Your task to perform on an android device: Open accessibility settings Image 0: 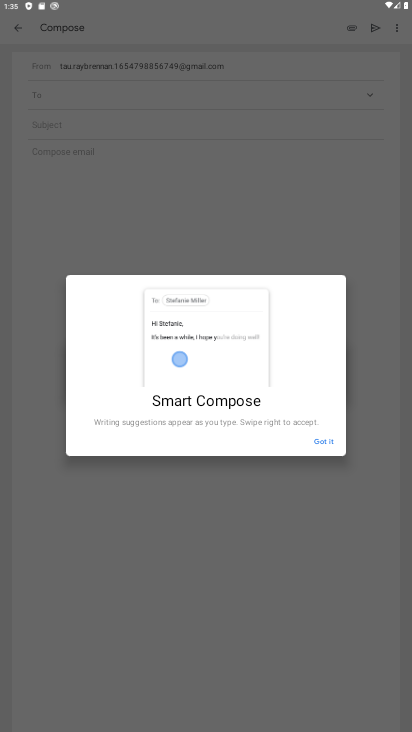
Step 0: press home button
Your task to perform on an android device: Open accessibility settings Image 1: 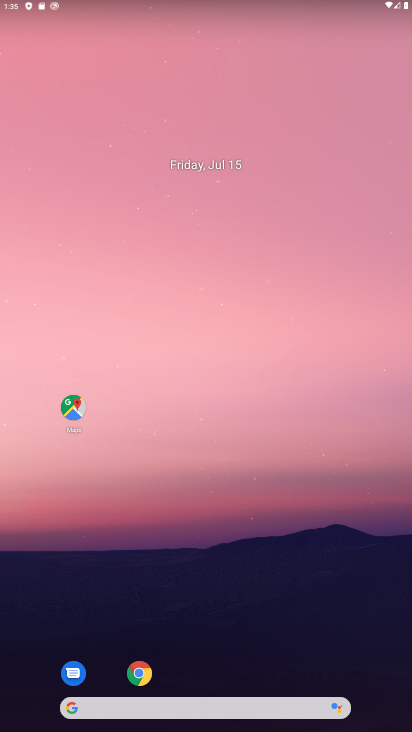
Step 1: drag from (234, 602) to (225, 4)
Your task to perform on an android device: Open accessibility settings Image 2: 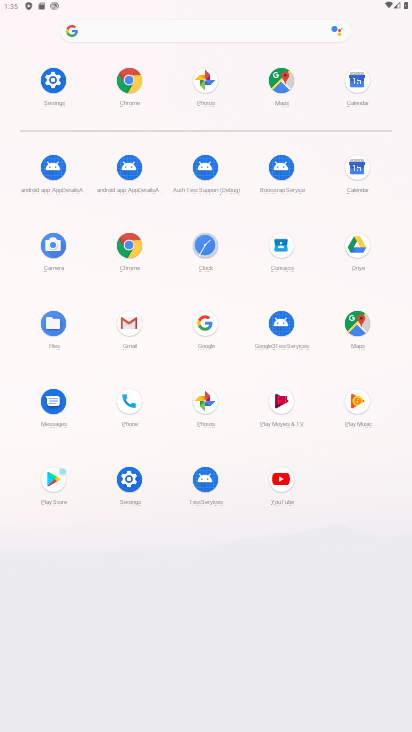
Step 2: click (59, 87)
Your task to perform on an android device: Open accessibility settings Image 3: 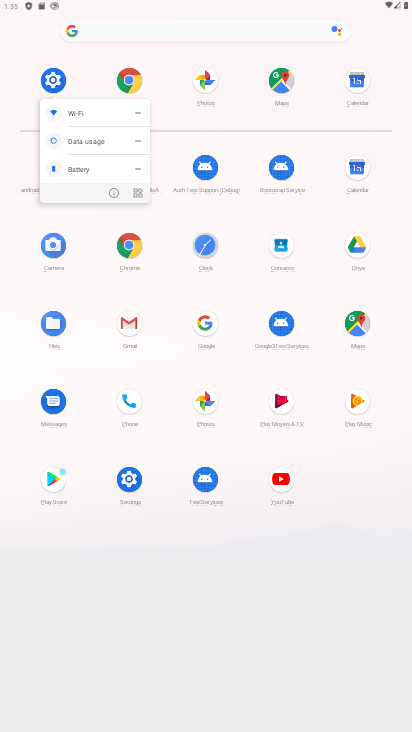
Step 3: click (58, 86)
Your task to perform on an android device: Open accessibility settings Image 4: 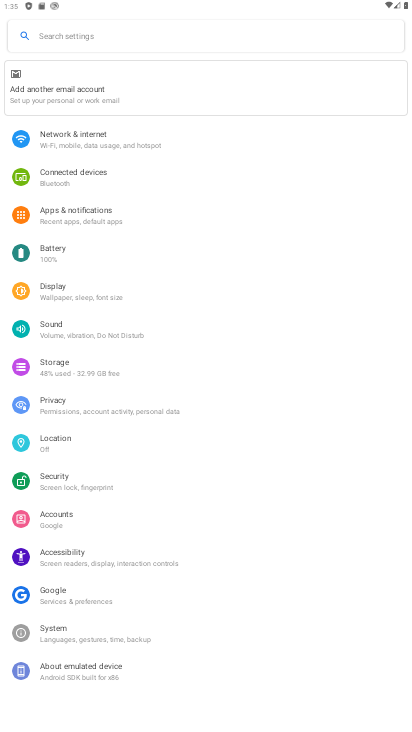
Step 4: click (33, 562)
Your task to perform on an android device: Open accessibility settings Image 5: 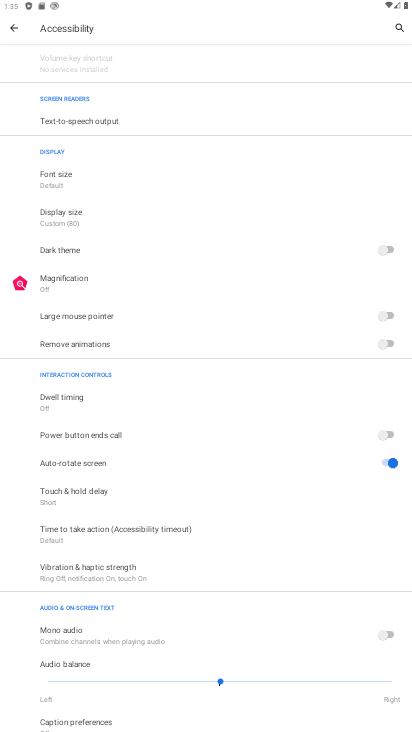
Step 5: task complete